Your task to perform on an android device: turn off airplane mode Image 0: 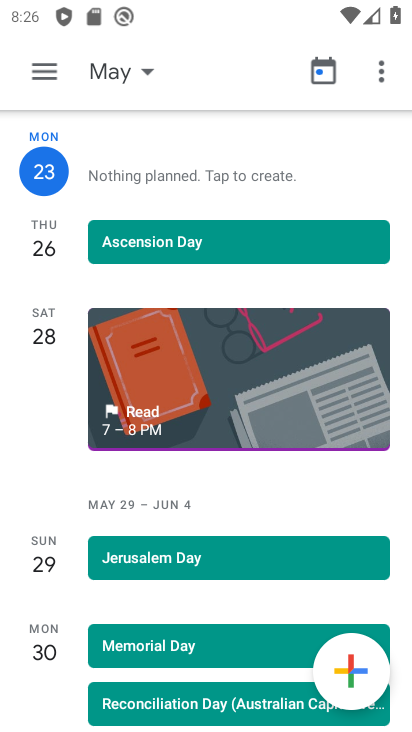
Step 0: press home button
Your task to perform on an android device: turn off airplane mode Image 1: 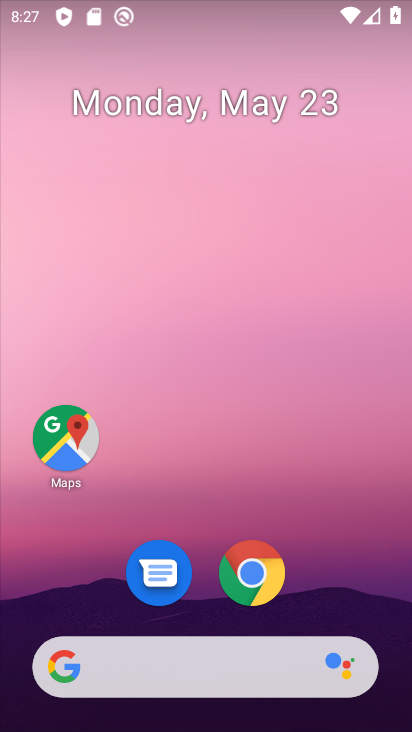
Step 1: drag from (348, 521) to (295, 79)
Your task to perform on an android device: turn off airplane mode Image 2: 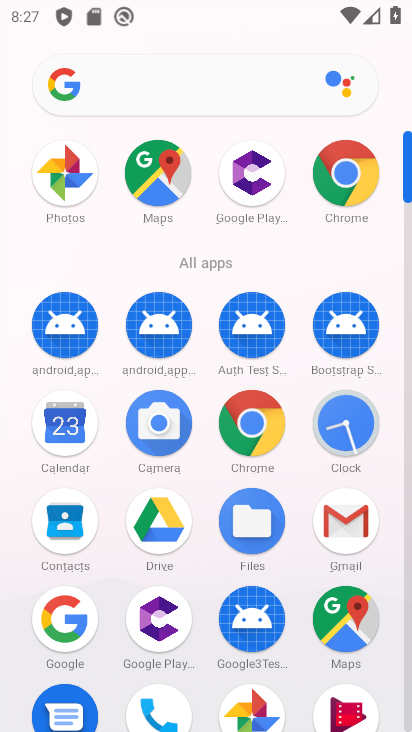
Step 2: drag from (202, 555) to (176, 245)
Your task to perform on an android device: turn off airplane mode Image 3: 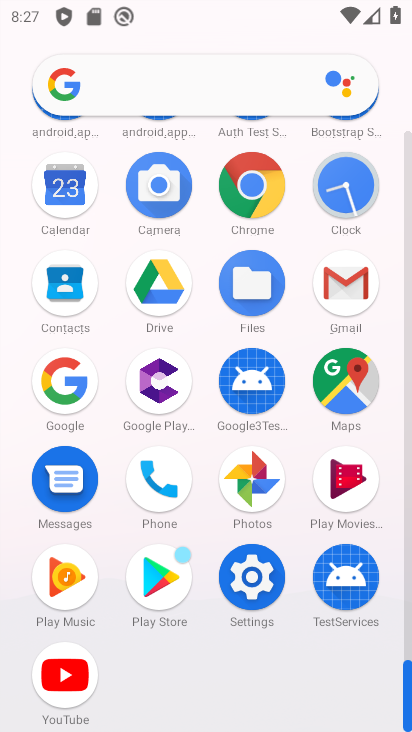
Step 3: click (253, 568)
Your task to perform on an android device: turn off airplane mode Image 4: 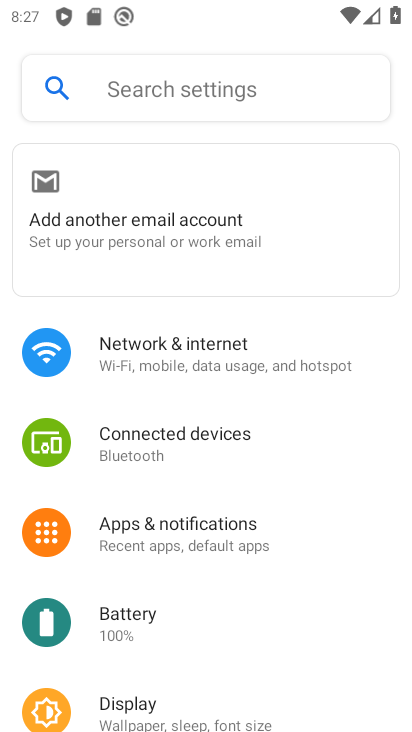
Step 4: click (247, 348)
Your task to perform on an android device: turn off airplane mode Image 5: 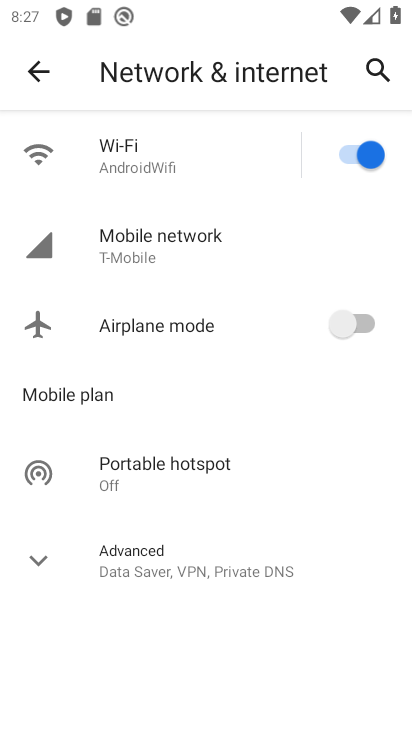
Step 5: task complete